Your task to perform on an android device: Search for the new Nike Air Jordan 33 on Nike.com Image 0: 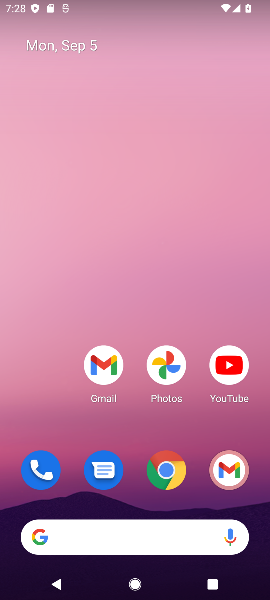
Step 0: click (172, 526)
Your task to perform on an android device: Search for the new Nike Air Jordan 33 on Nike.com Image 1: 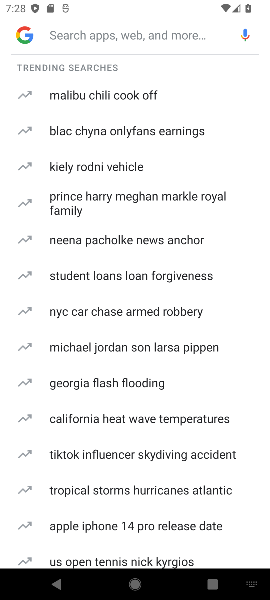
Step 1: type "nike.com"
Your task to perform on an android device: Search for the new Nike Air Jordan 33 on Nike.com Image 2: 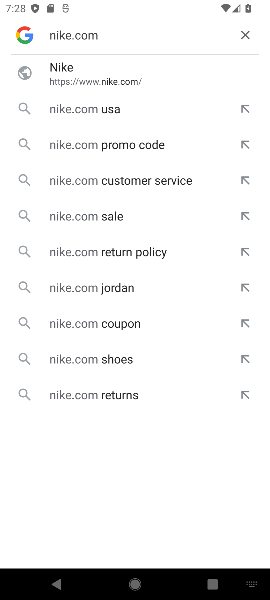
Step 2: click (74, 70)
Your task to perform on an android device: Search for the new Nike Air Jordan 33 on Nike.com Image 3: 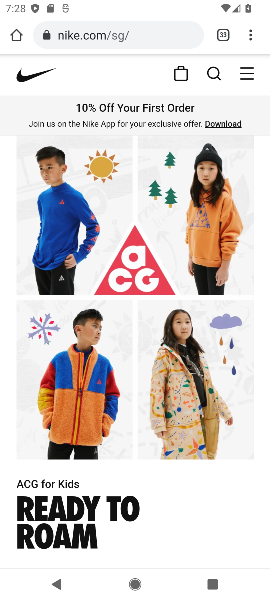
Step 3: click (212, 70)
Your task to perform on an android device: Search for the new Nike Air Jordan 33 on Nike.com Image 4: 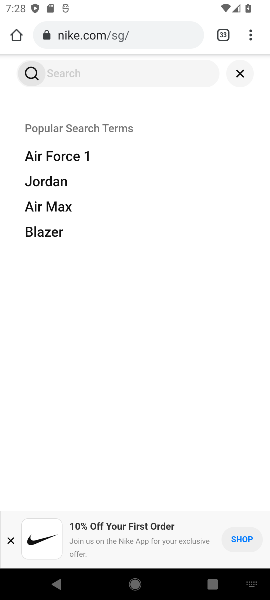
Step 4: type "nike air jordan 33"
Your task to perform on an android device: Search for the new Nike Air Jordan 33 on Nike.com Image 5: 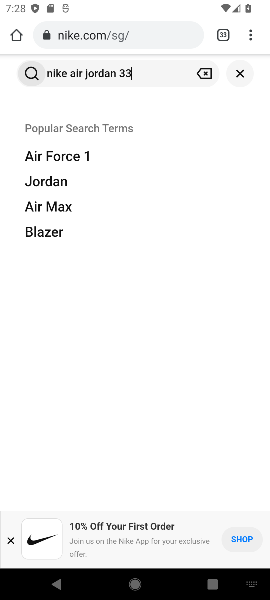
Step 5: click (23, 69)
Your task to perform on an android device: Search for the new Nike Air Jordan 33 on Nike.com Image 6: 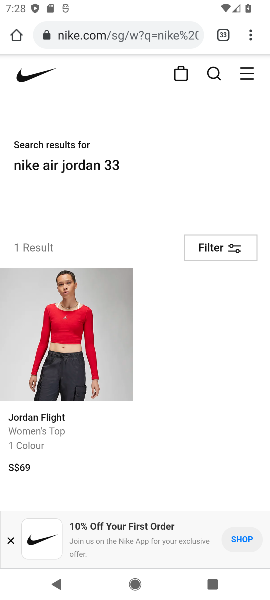
Step 6: task complete